Your task to perform on an android device: toggle pop-ups in chrome Image 0: 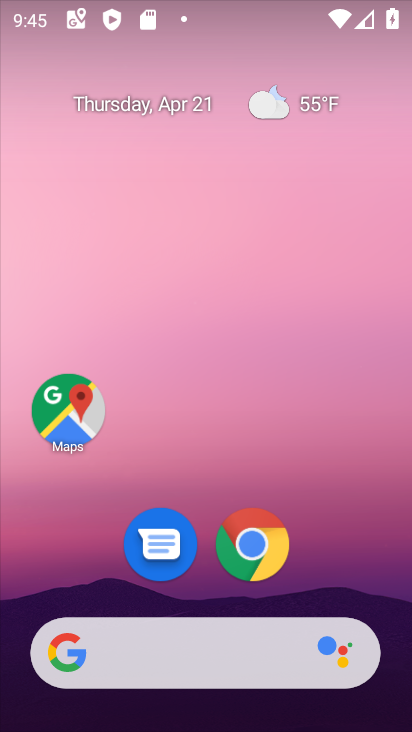
Step 0: drag from (370, 527) to (308, 66)
Your task to perform on an android device: toggle pop-ups in chrome Image 1: 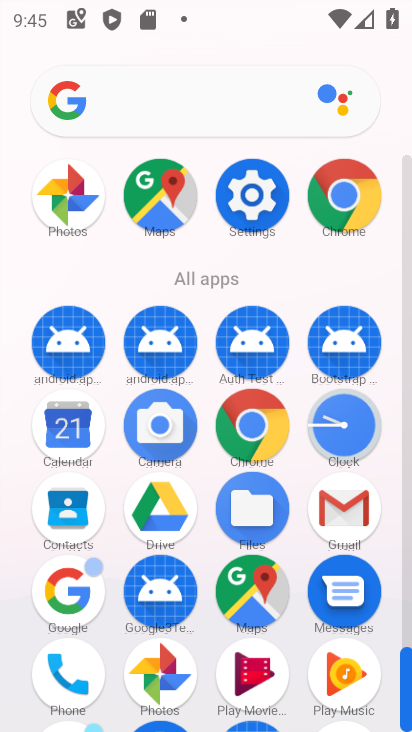
Step 1: click (250, 420)
Your task to perform on an android device: toggle pop-ups in chrome Image 2: 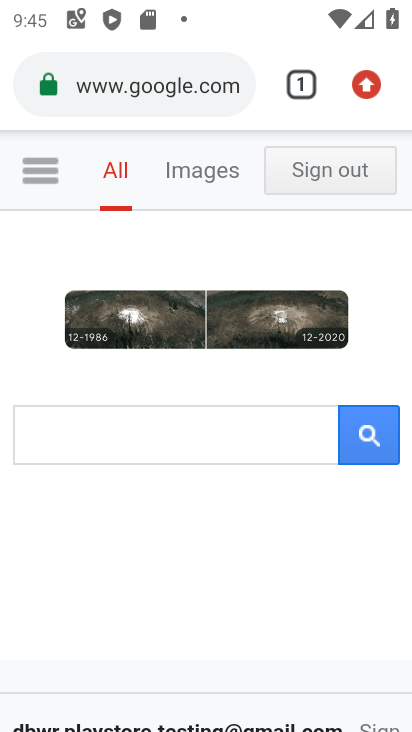
Step 2: drag from (366, 86) to (102, 602)
Your task to perform on an android device: toggle pop-ups in chrome Image 3: 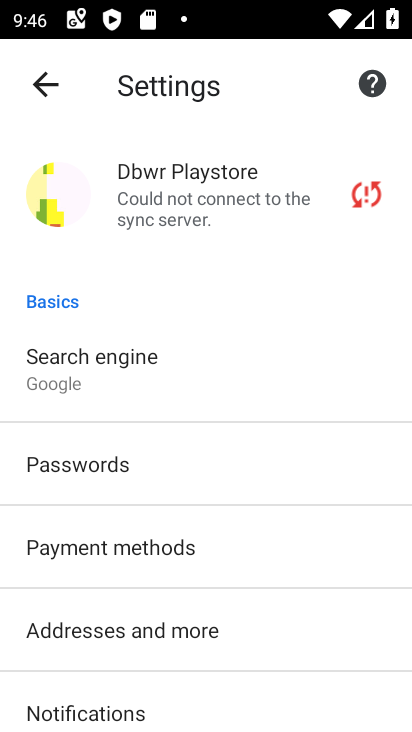
Step 3: drag from (258, 488) to (267, 164)
Your task to perform on an android device: toggle pop-ups in chrome Image 4: 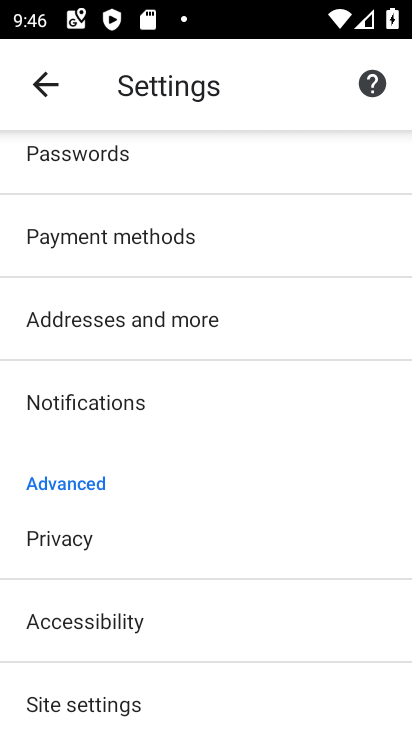
Step 4: drag from (240, 549) to (235, 160)
Your task to perform on an android device: toggle pop-ups in chrome Image 5: 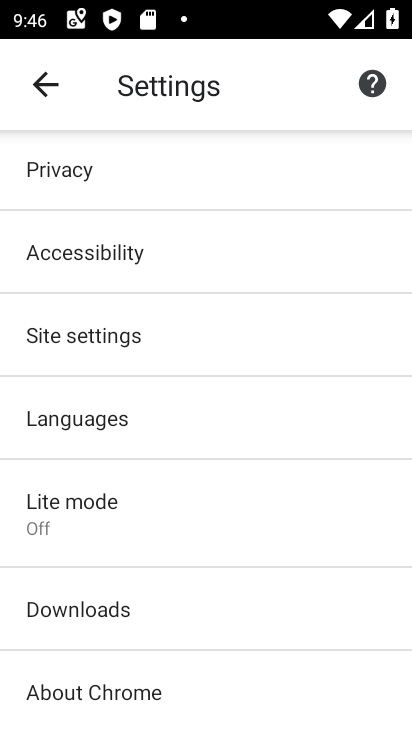
Step 5: drag from (201, 635) to (207, 454)
Your task to perform on an android device: toggle pop-ups in chrome Image 6: 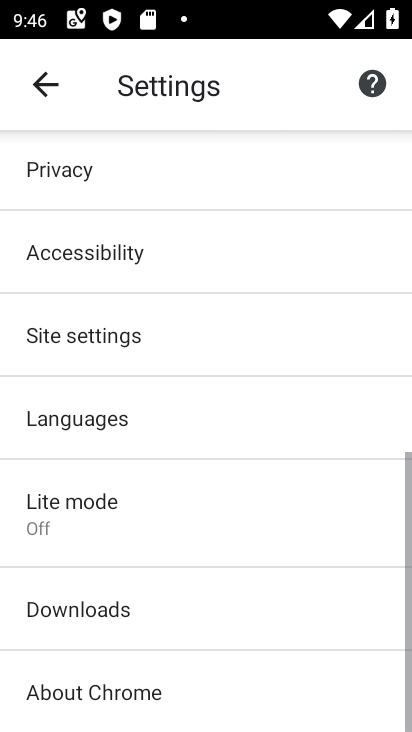
Step 6: click (134, 344)
Your task to perform on an android device: toggle pop-ups in chrome Image 7: 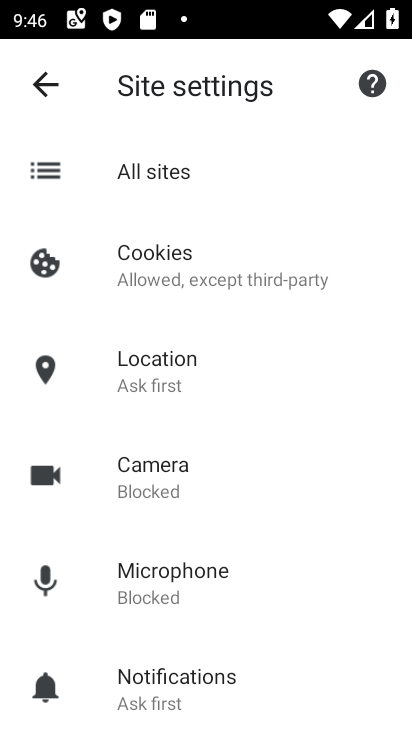
Step 7: drag from (282, 597) to (267, 211)
Your task to perform on an android device: toggle pop-ups in chrome Image 8: 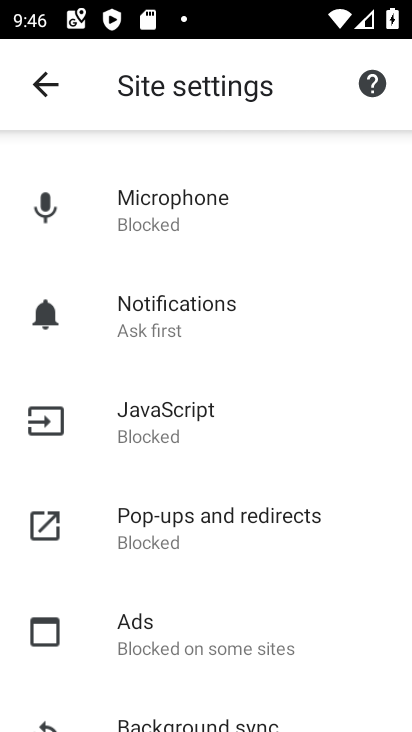
Step 8: click (169, 521)
Your task to perform on an android device: toggle pop-ups in chrome Image 9: 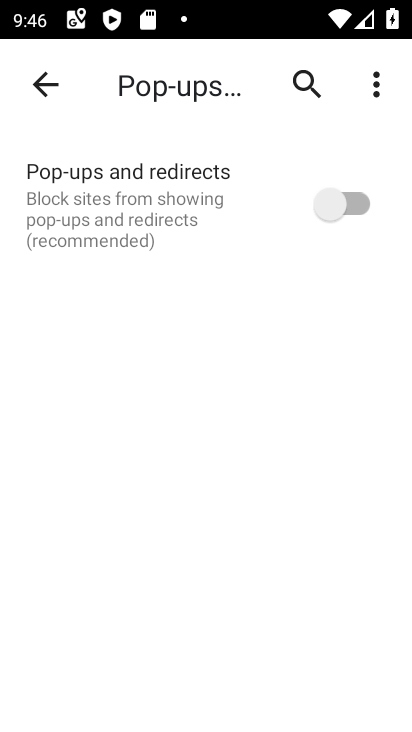
Step 9: click (355, 200)
Your task to perform on an android device: toggle pop-ups in chrome Image 10: 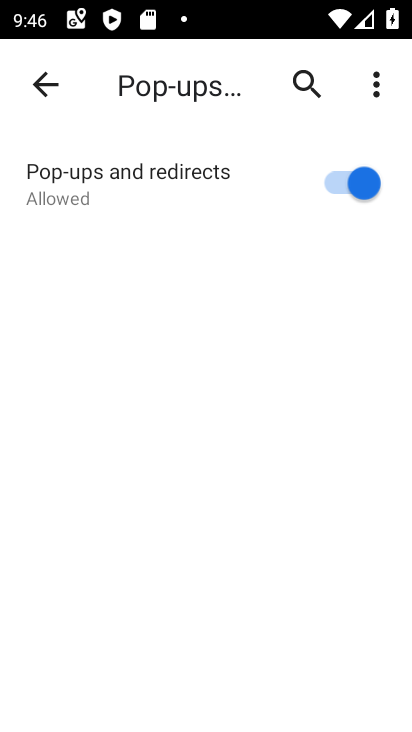
Step 10: task complete